Your task to perform on an android device: turn off picture-in-picture Image 0: 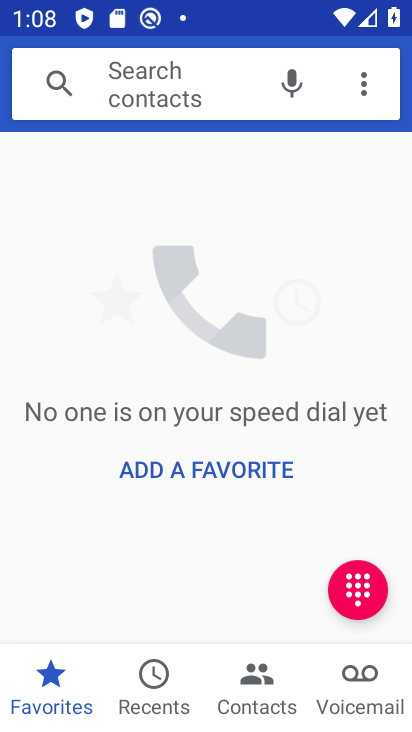
Step 0: press home button
Your task to perform on an android device: turn off picture-in-picture Image 1: 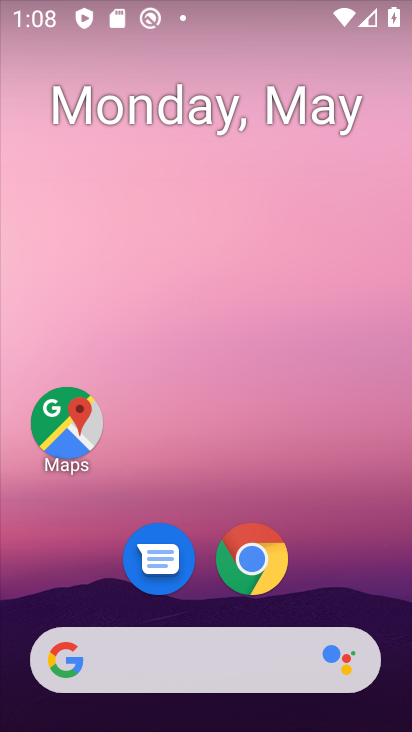
Step 1: click (254, 556)
Your task to perform on an android device: turn off picture-in-picture Image 2: 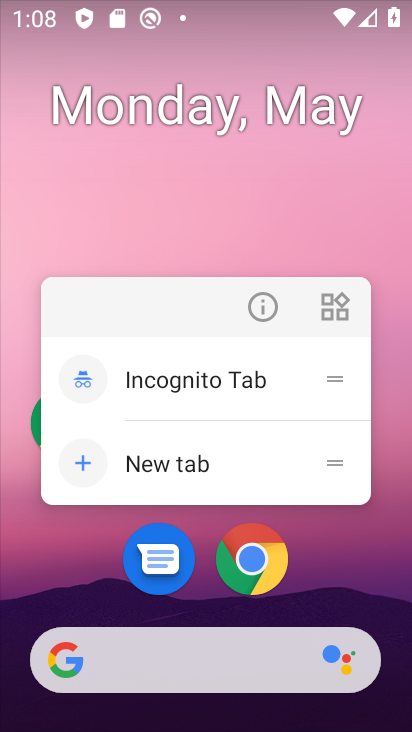
Step 2: click (262, 314)
Your task to perform on an android device: turn off picture-in-picture Image 3: 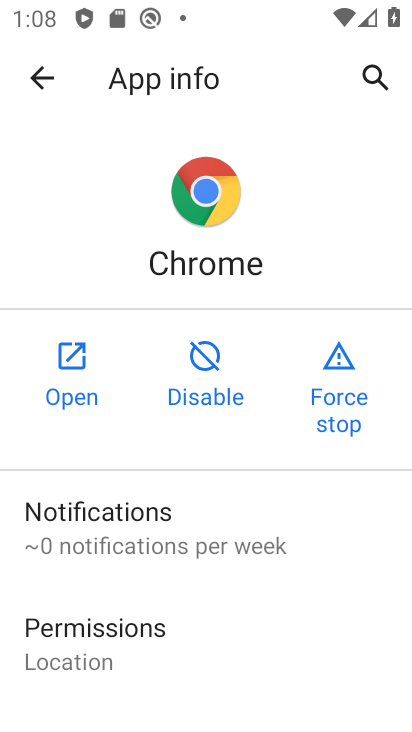
Step 3: drag from (235, 682) to (324, 24)
Your task to perform on an android device: turn off picture-in-picture Image 4: 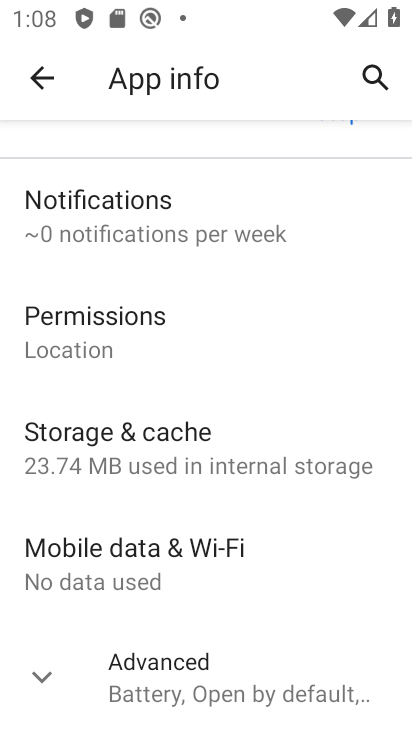
Step 4: click (239, 687)
Your task to perform on an android device: turn off picture-in-picture Image 5: 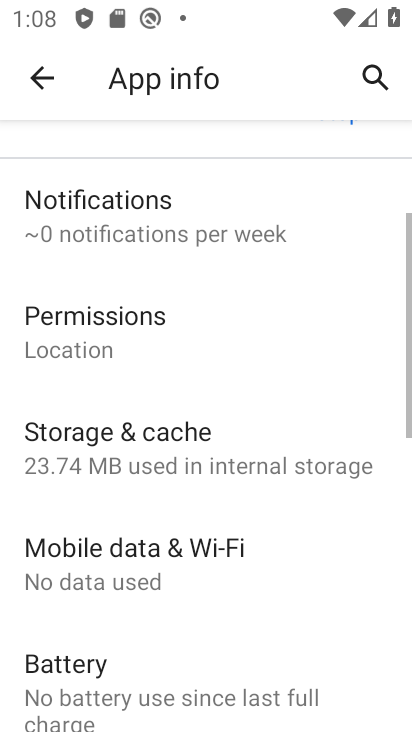
Step 5: drag from (271, 677) to (353, 134)
Your task to perform on an android device: turn off picture-in-picture Image 6: 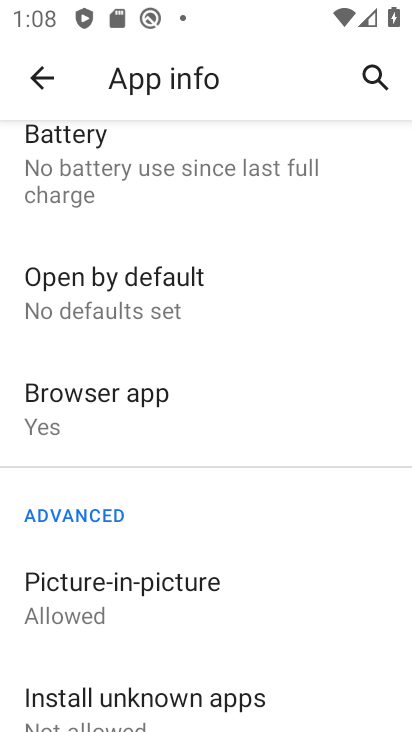
Step 6: click (118, 589)
Your task to perform on an android device: turn off picture-in-picture Image 7: 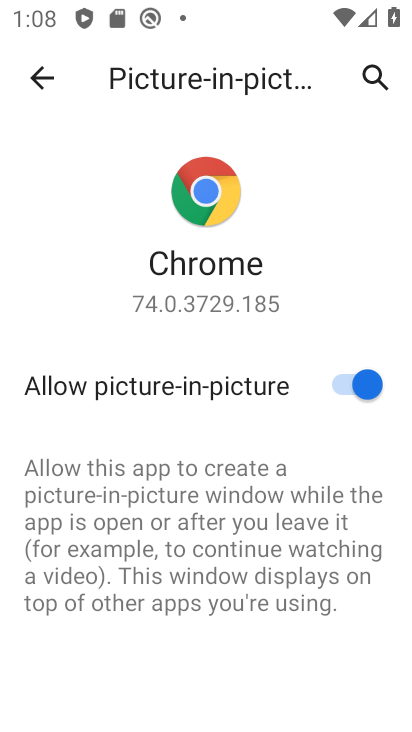
Step 7: click (343, 385)
Your task to perform on an android device: turn off picture-in-picture Image 8: 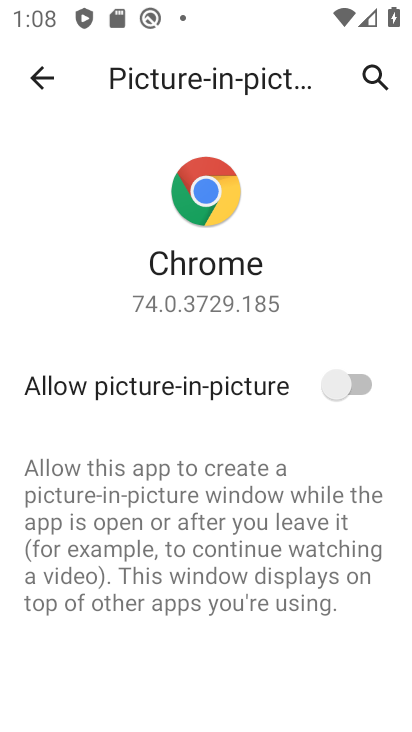
Step 8: task complete